Your task to perform on an android device: Open wifi settings Image 0: 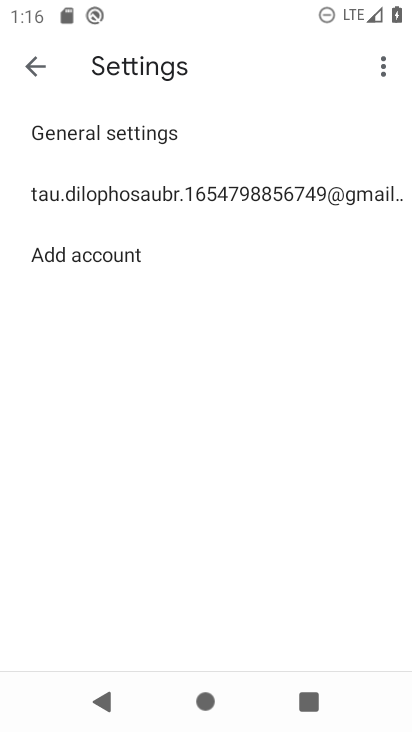
Step 0: click (262, 193)
Your task to perform on an android device: Open wifi settings Image 1: 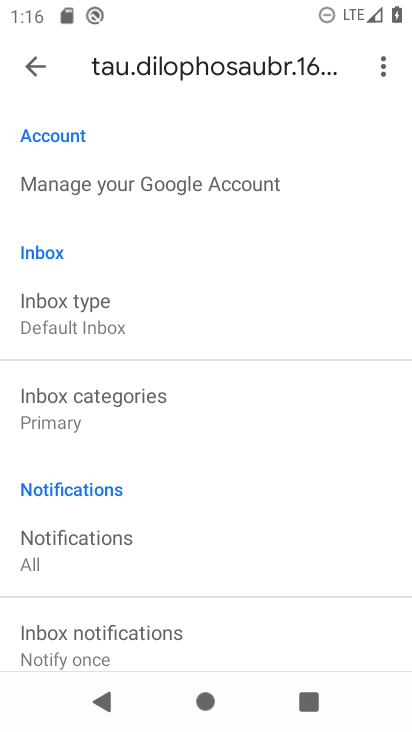
Step 1: press home button
Your task to perform on an android device: Open wifi settings Image 2: 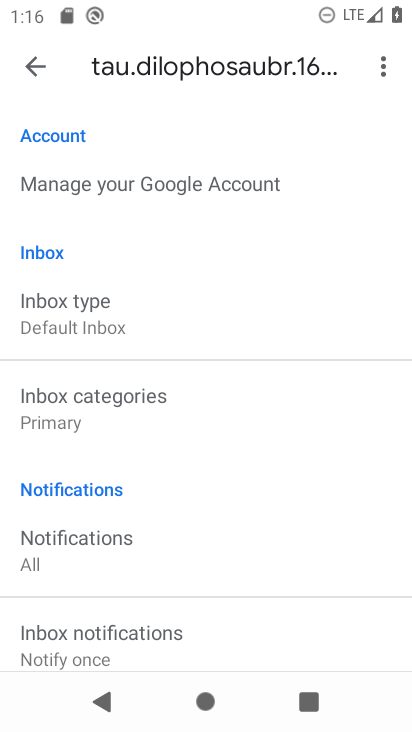
Step 2: press home button
Your task to perform on an android device: Open wifi settings Image 3: 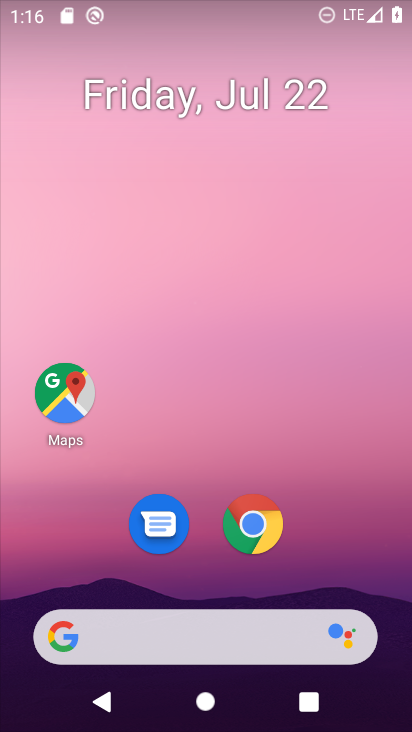
Step 3: drag from (324, 573) to (352, 82)
Your task to perform on an android device: Open wifi settings Image 4: 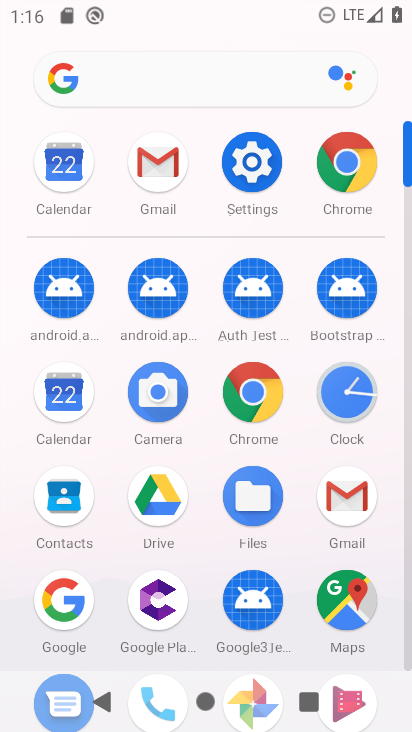
Step 4: click (258, 153)
Your task to perform on an android device: Open wifi settings Image 5: 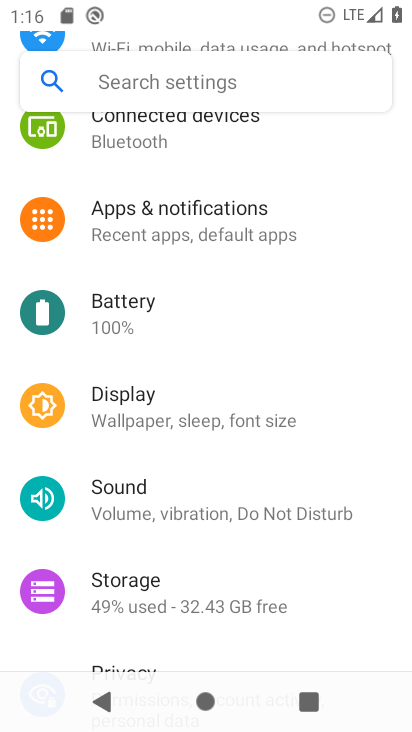
Step 5: drag from (210, 337) to (196, 712)
Your task to perform on an android device: Open wifi settings Image 6: 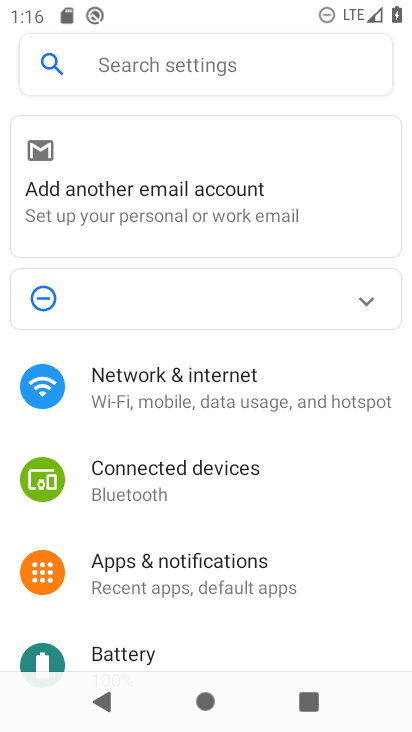
Step 6: click (186, 403)
Your task to perform on an android device: Open wifi settings Image 7: 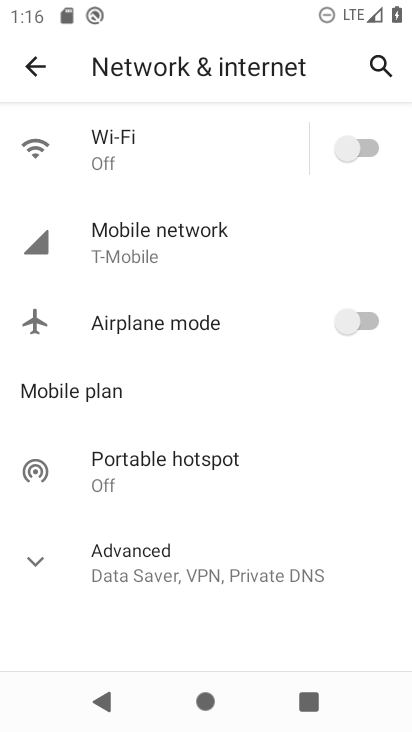
Step 7: click (156, 151)
Your task to perform on an android device: Open wifi settings Image 8: 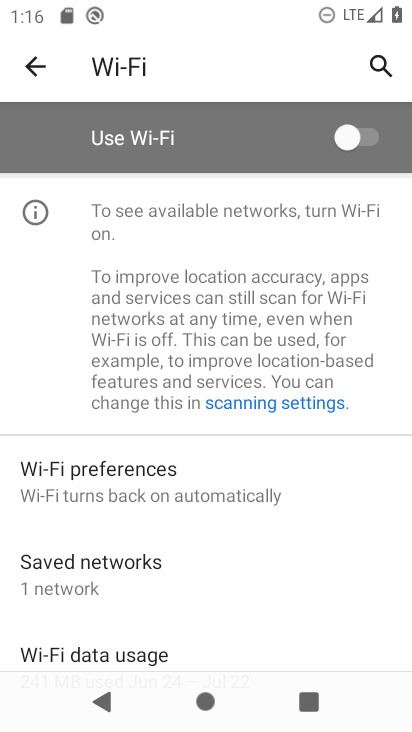
Step 8: task complete